Your task to perform on an android device: Search for seafood restaurants on Google Maps Image 0: 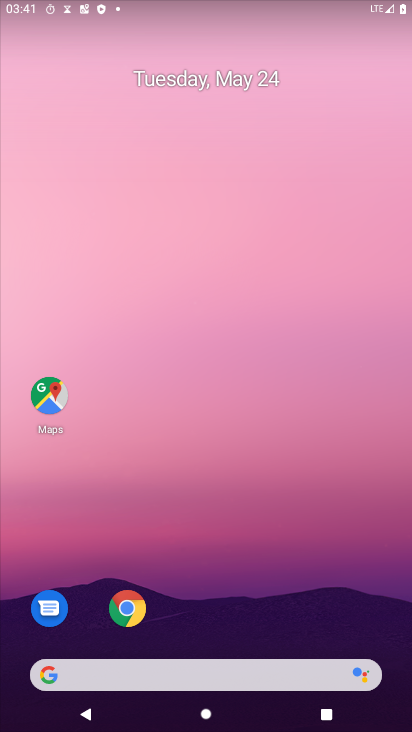
Step 0: click (51, 405)
Your task to perform on an android device: Search for seafood restaurants on Google Maps Image 1: 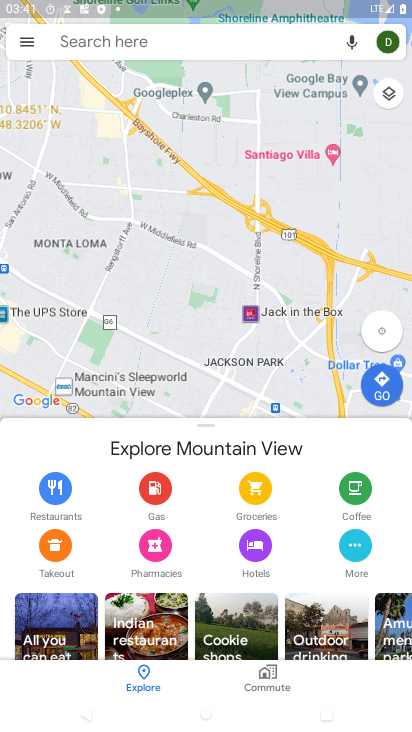
Step 1: click (130, 48)
Your task to perform on an android device: Search for seafood restaurants on Google Maps Image 2: 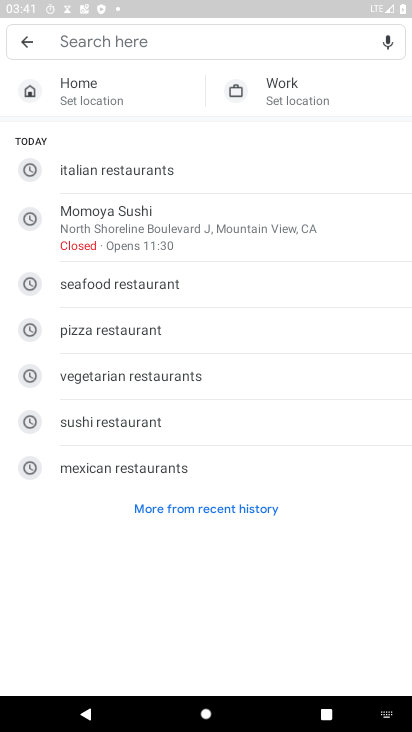
Step 2: click (183, 295)
Your task to perform on an android device: Search for seafood restaurants on Google Maps Image 3: 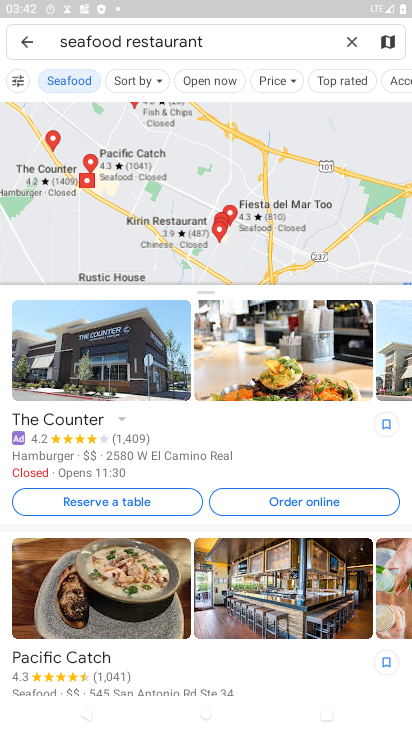
Step 3: task complete